Your task to perform on an android device: find which apps use the phone's location Image 0: 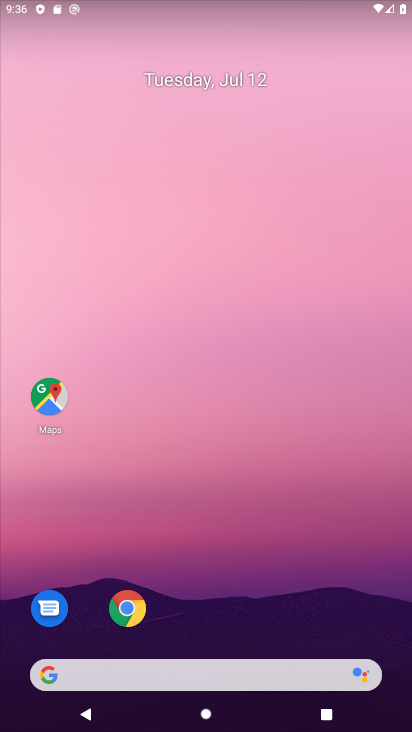
Step 0: drag from (329, 546) to (220, 68)
Your task to perform on an android device: find which apps use the phone's location Image 1: 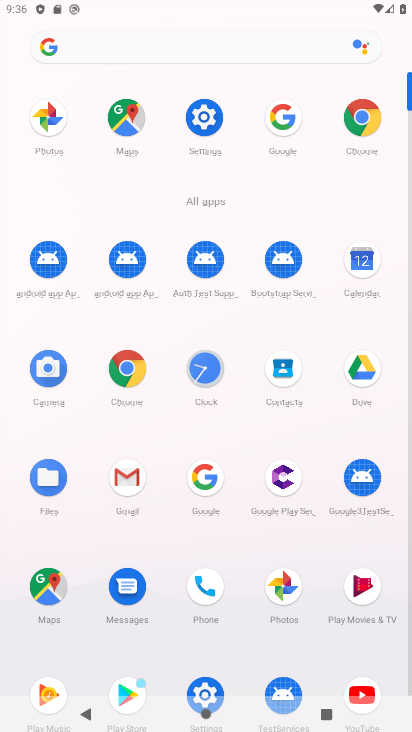
Step 1: click (203, 127)
Your task to perform on an android device: find which apps use the phone's location Image 2: 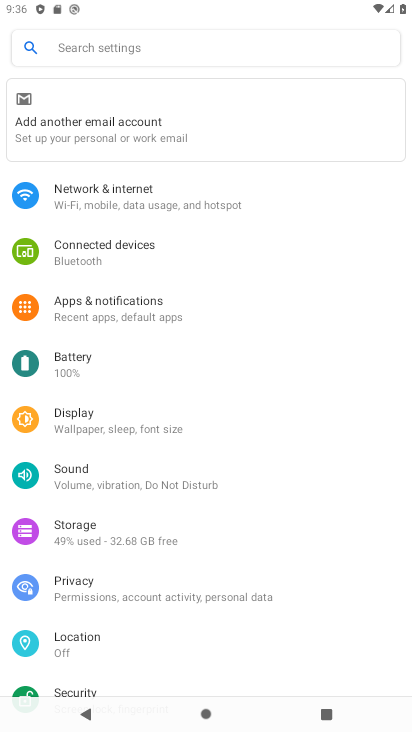
Step 2: click (66, 644)
Your task to perform on an android device: find which apps use the phone's location Image 3: 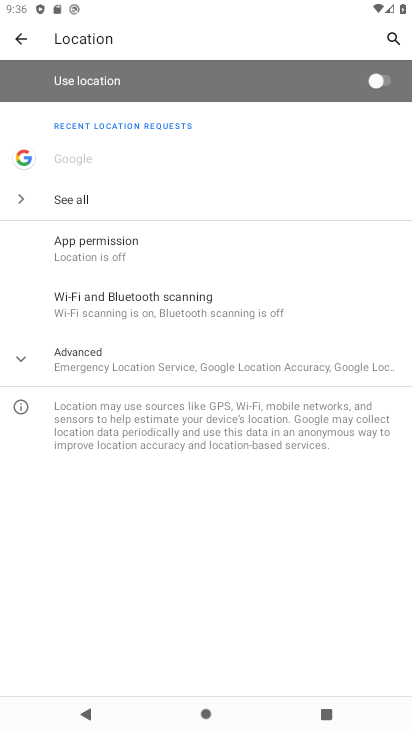
Step 3: click (198, 233)
Your task to perform on an android device: find which apps use the phone's location Image 4: 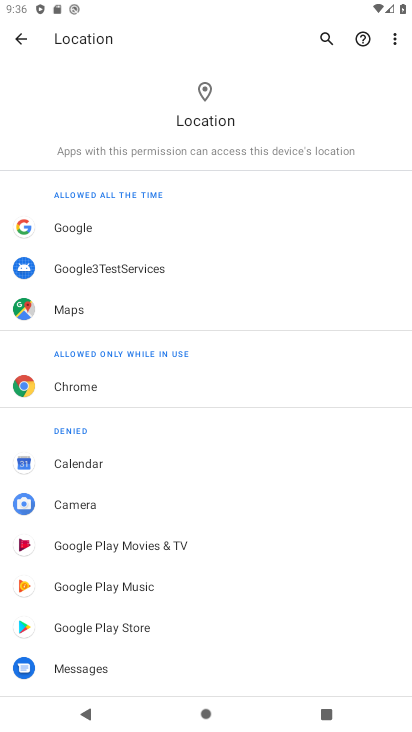
Step 4: task complete